Your task to perform on an android device: turn on priority inbox in the gmail app Image 0: 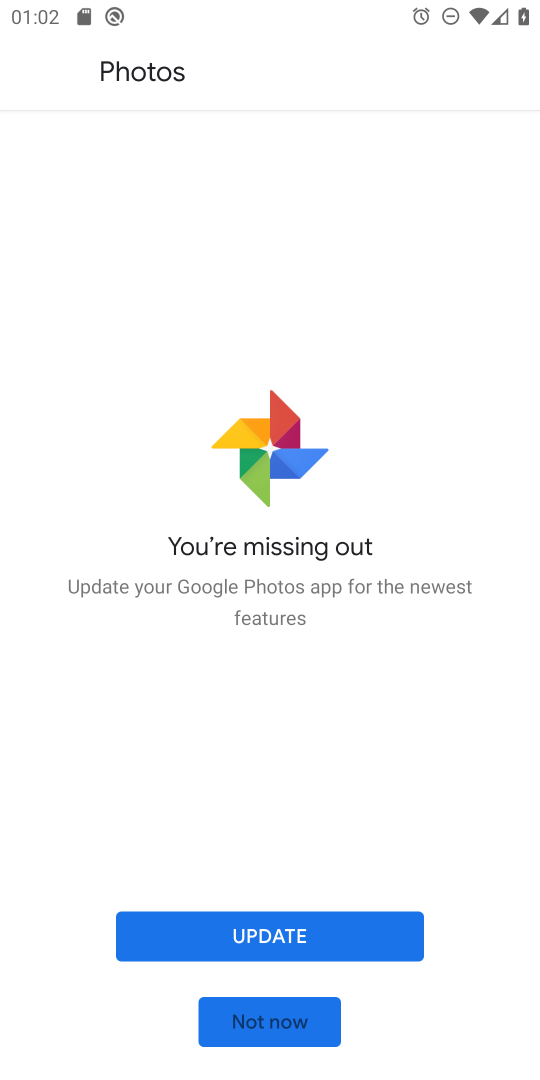
Step 0: press home button
Your task to perform on an android device: turn on priority inbox in the gmail app Image 1: 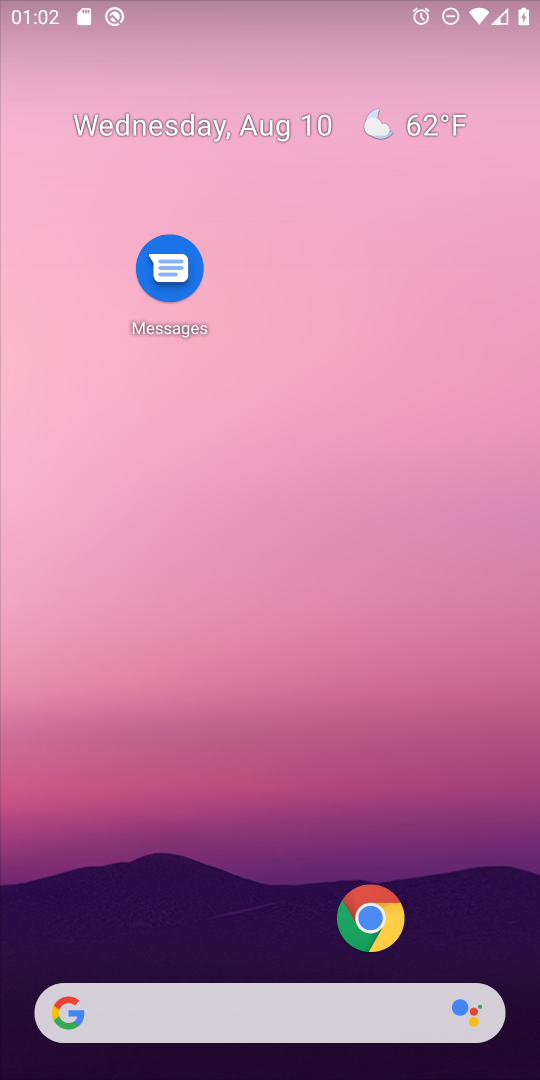
Step 1: drag from (462, 787) to (490, 94)
Your task to perform on an android device: turn on priority inbox in the gmail app Image 2: 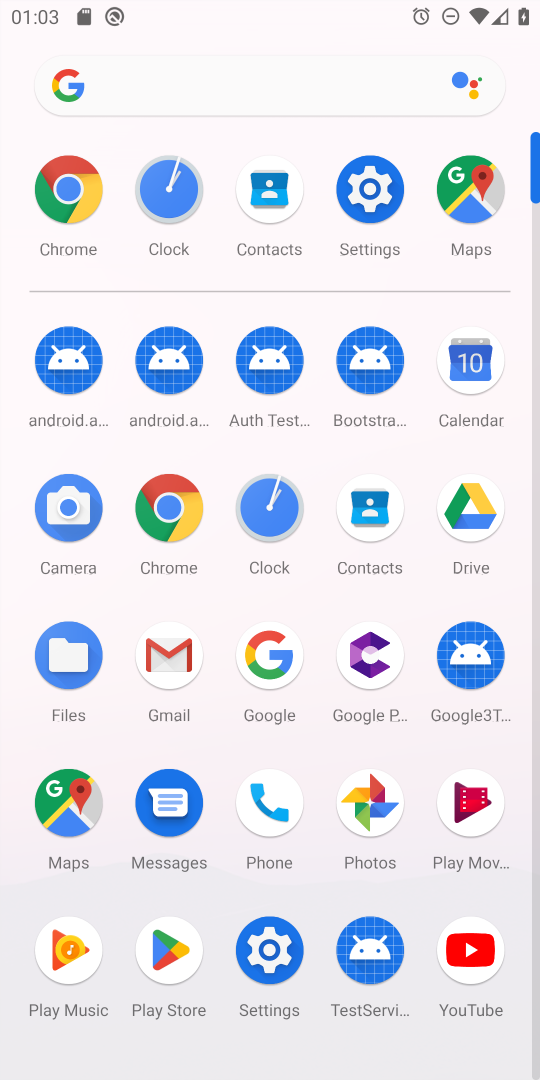
Step 2: click (177, 646)
Your task to perform on an android device: turn on priority inbox in the gmail app Image 3: 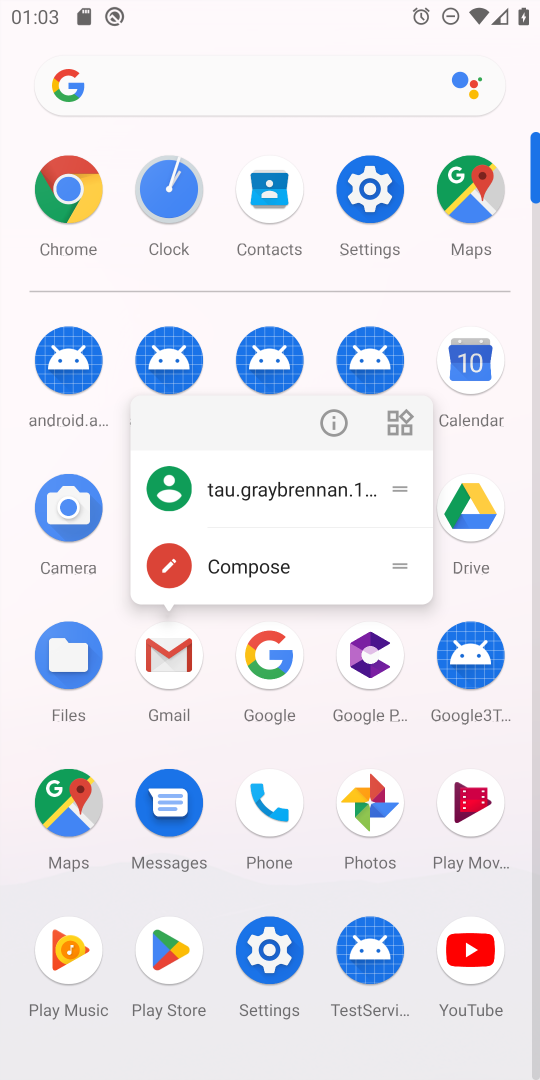
Step 3: click (164, 663)
Your task to perform on an android device: turn on priority inbox in the gmail app Image 4: 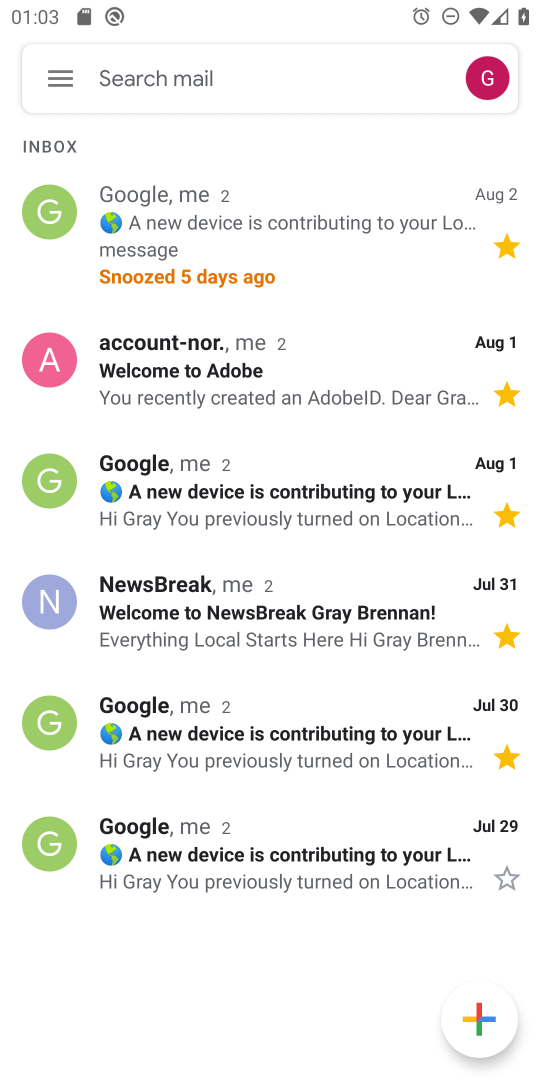
Step 4: click (58, 70)
Your task to perform on an android device: turn on priority inbox in the gmail app Image 5: 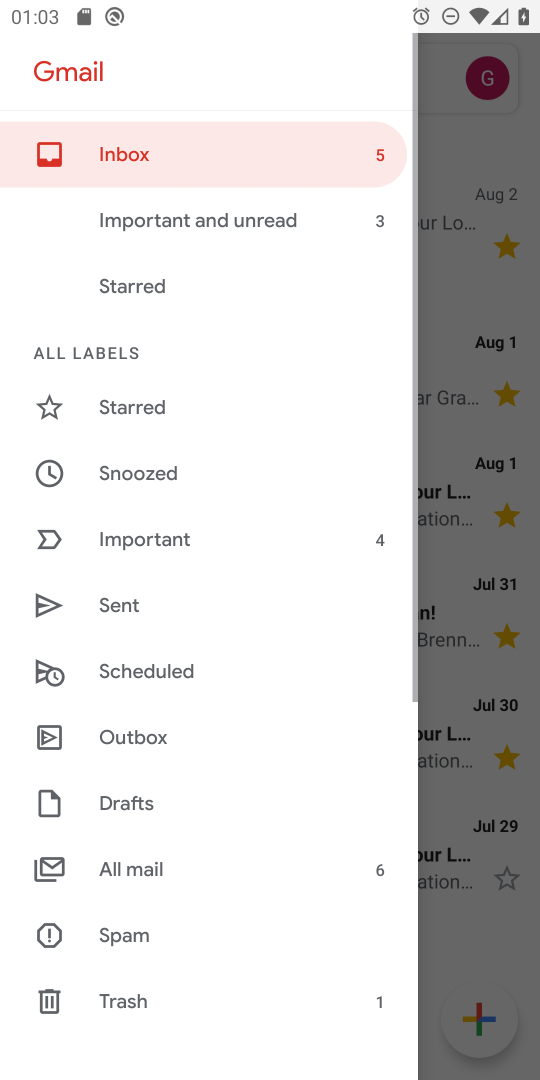
Step 5: drag from (301, 778) to (354, 348)
Your task to perform on an android device: turn on priority inbox in the gmail app Image 6: 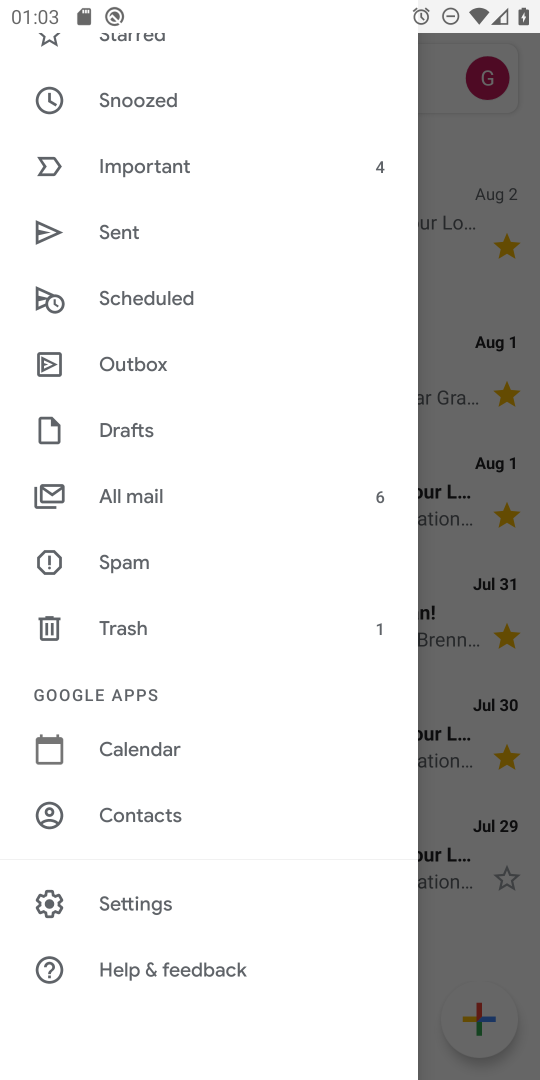
Step 6: drag from (174, 863) to (262, 414)
Your task to perform on an android device: turn on priority inbox in the gmail app Image 7: 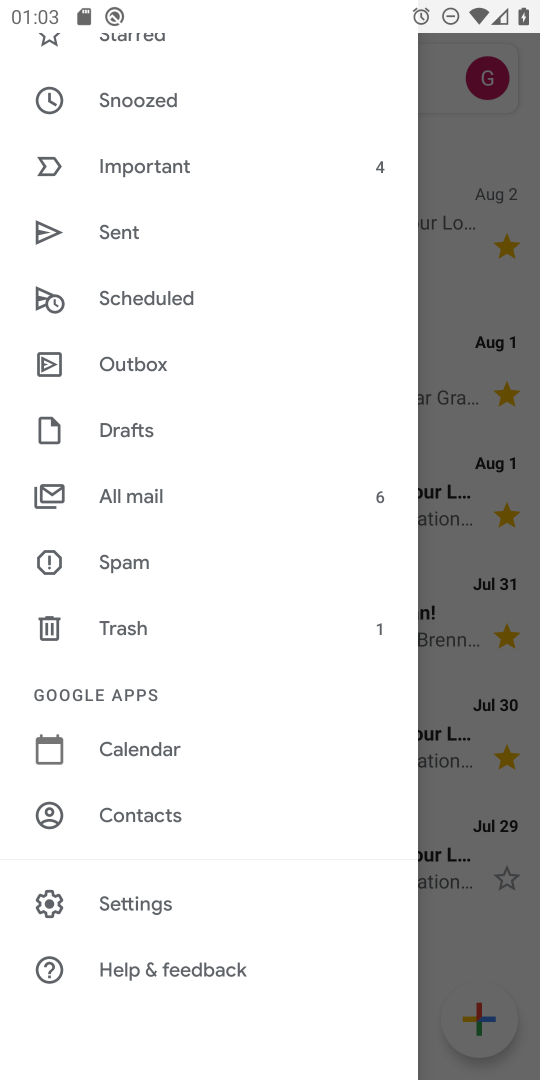
Step 7: click (137, 907)
Your task to perform on an android device: turn on priority inbox in the gmail app Image 8: 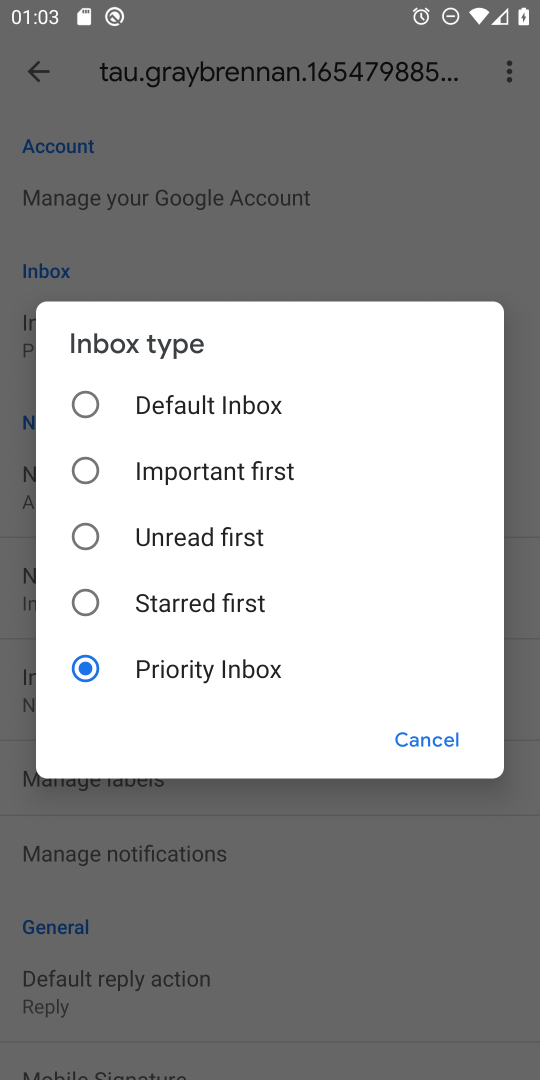
Step 8: task complete